Your task to perform on an android device: manage bookmarks in the chrome app Image 0: 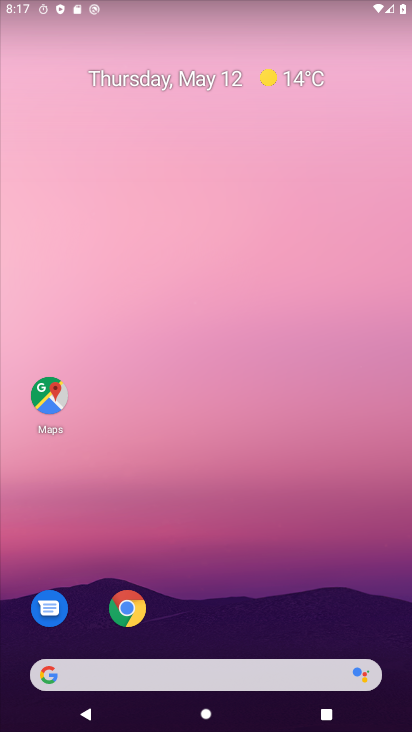
Step 0: click (136, 612)
Your task to perform on an android device: manage bookmarks in the chrome app Image 1: 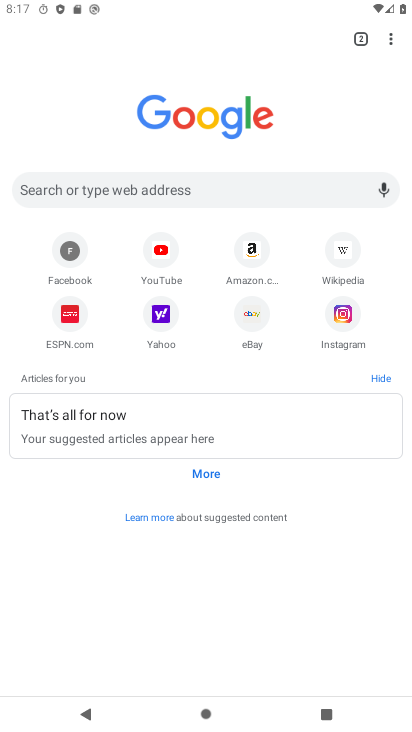
Step 1: click (384, 40)
Your task to perform on an android device: manage bookmarks in the chrome app Image 2: 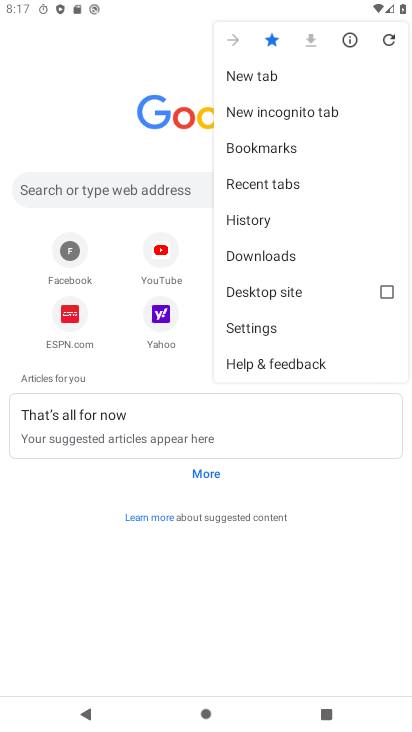
Step 2: click (337, 146)
Your task to perform on an android device: manage bookmarks in the chrome app Image 3: 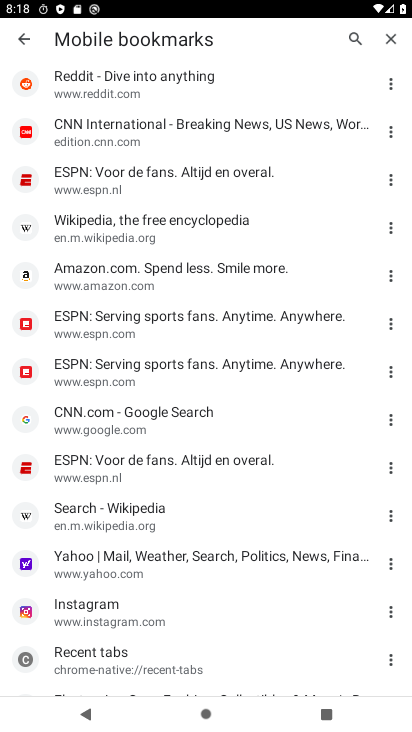
Step 3: click (403, 82)
Your task to perform on an android device: manage bookmarks in the chrome app Image 4: 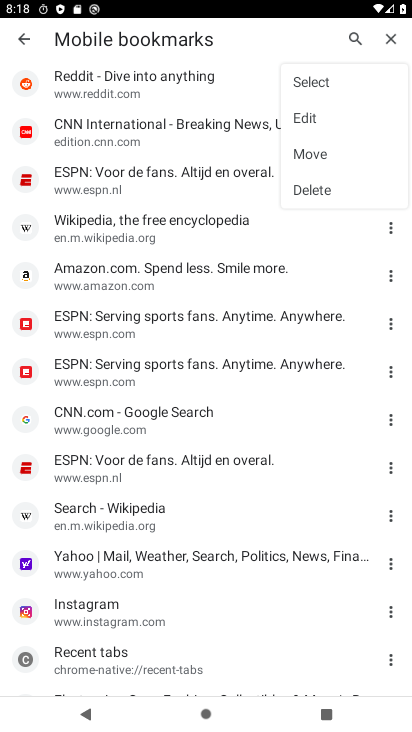
Step 4: click (352, 153)
Your task to perform on an android device: manage bookmarks in the chrome app Image 5: 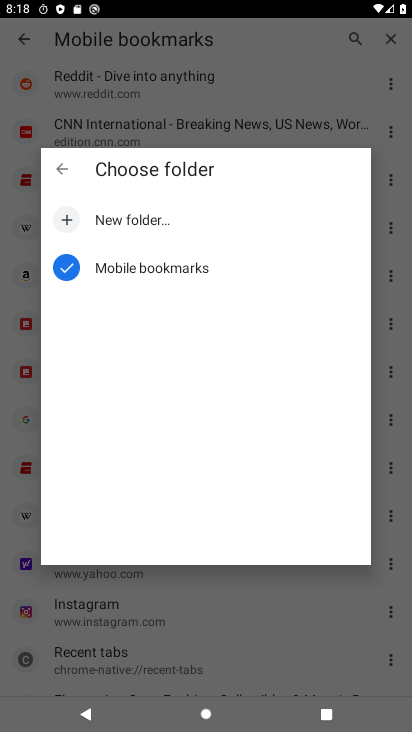
Step 5: click (242, 271)
Your task to perform on an android device: manage bookmarks in the chrome app Image 6: 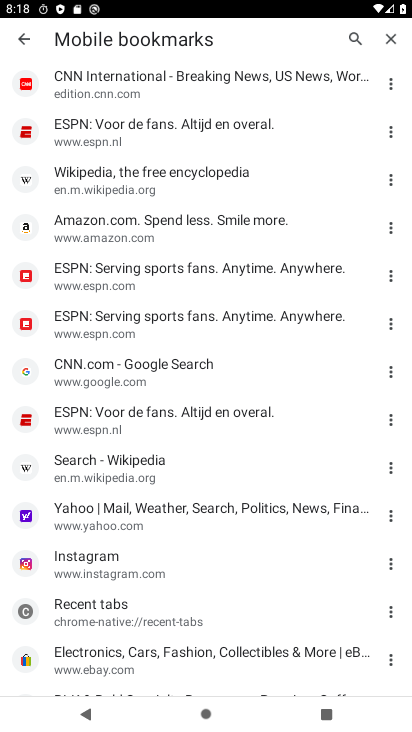
Step 6: task complete